Your task to perform on an android device: Open Chrome and go to settings Image 0: 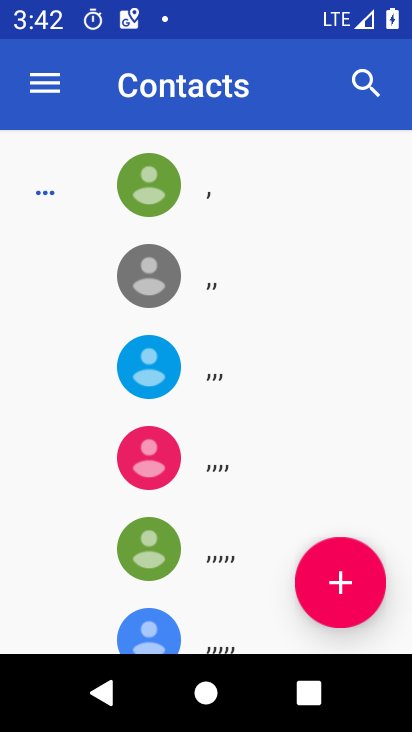
Step 0: press home button
Your task to perform on an android device: Open Chrome and go to settings Image 1: 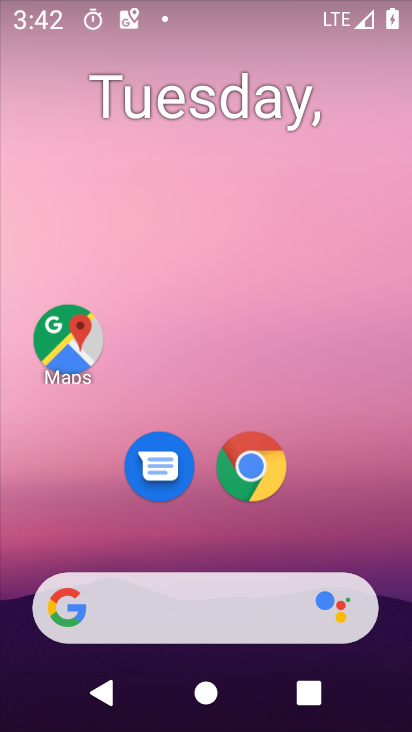
Step 1: drag from (380, 563) to (363, 278)
Your task to perform on an android device: Open Chrome and go to settings Image 2: 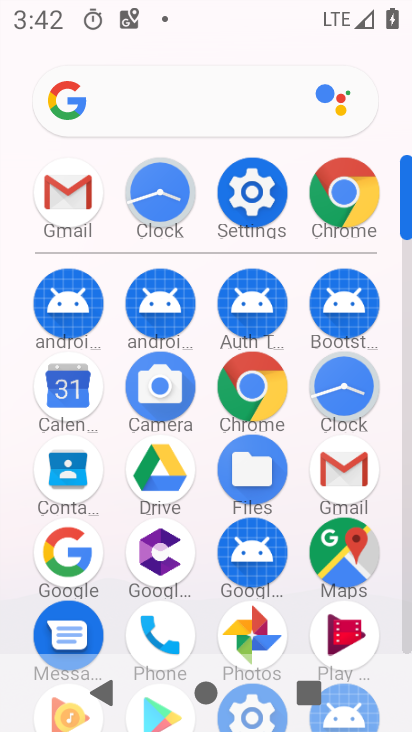
Step 2: click (245, 404)
Your task to perform on an android device: Open Chrome and go to settings Image 3: 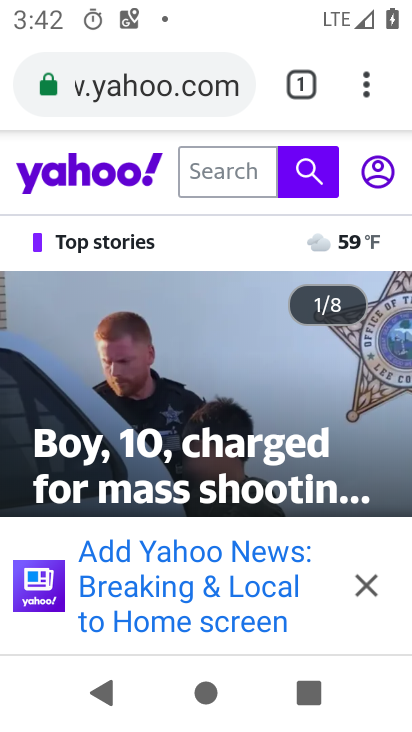
Step 3: click (370, 96)
Your task to perform on an android device: Open Chrome and go to settings Image 4: 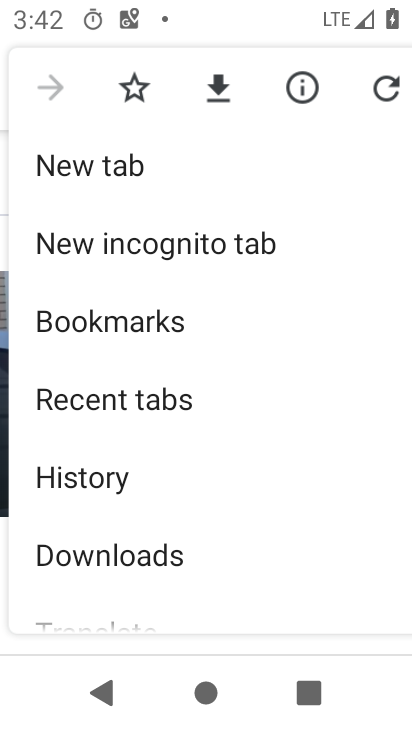
Step 4: drag from (329, 329) to (331, 246)
Your task to perform on an android device: Open Chrome and go to settings Image 5: 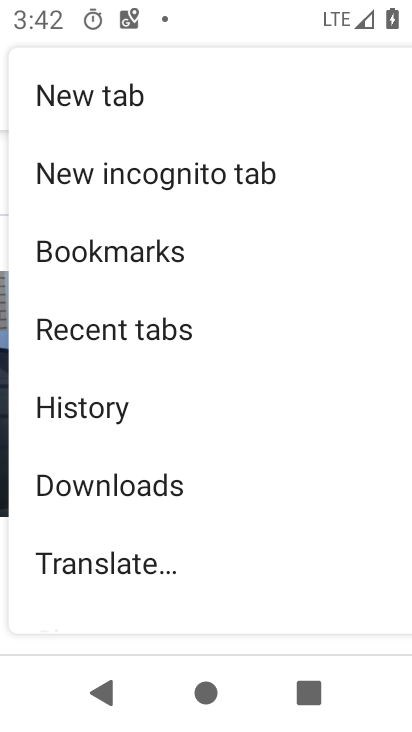
Step 5: drag from (324, 331) to (325, 241)
Your task to perform on an android device: Open Chrome and go to settings Image 6: 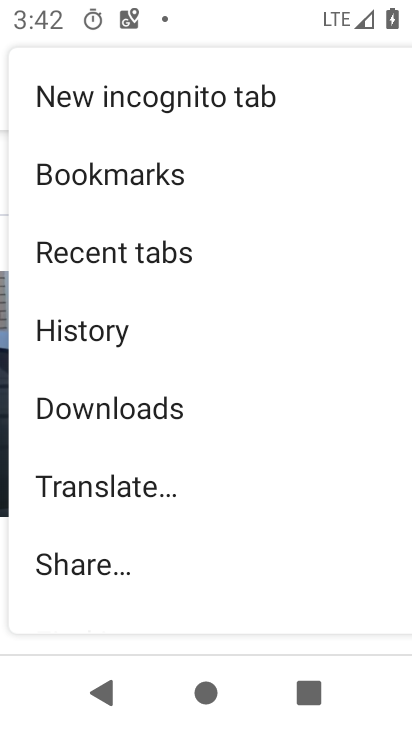
Step 6: drag from (312, 350) to (311, 268)
Your task to perform on an android device: Open Chrome and go to settings Image 7: 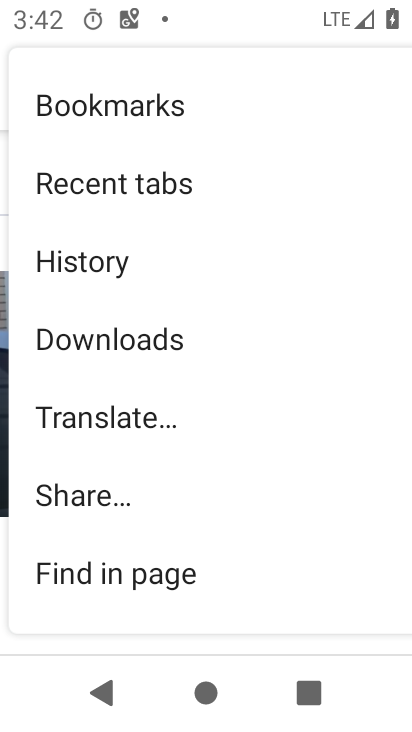
Step 7: drag from (304, 298) to (310, 254)
Your task to perform on an android device: Open Chrome and go to settings Image 8: 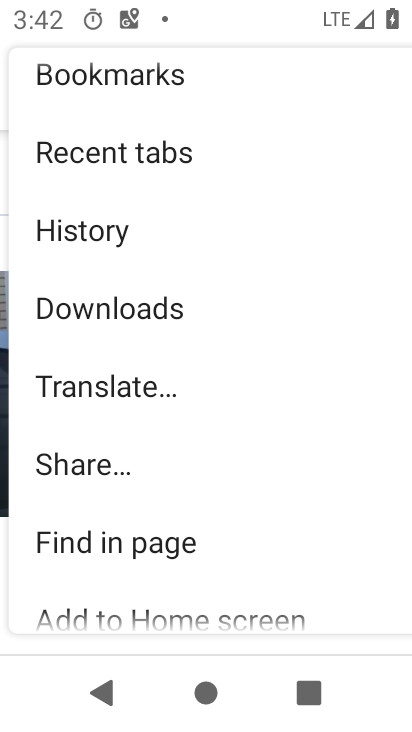
Step 8: drag from (279, 455) to (286, 303)
Your task to perform on an android device: Open Chrome and go to settings Image 9: 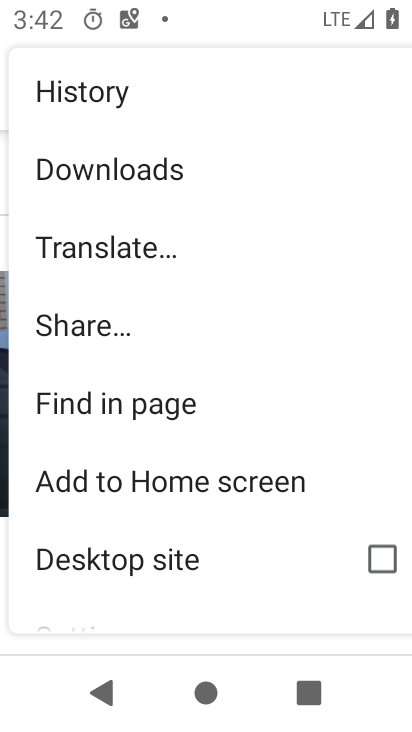
Step 9: drag from (268, 520) to (276, 378)
Your task to perform on an android device: Open Chrome and go to settings Image 10: 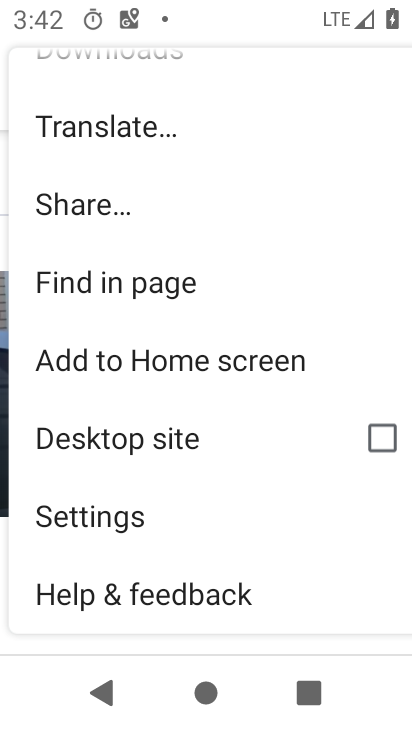
Step 10: drag from (271, 504) to (271, 356)
Your task to perform on an android device: Open Chrome and go to settings Image 11: 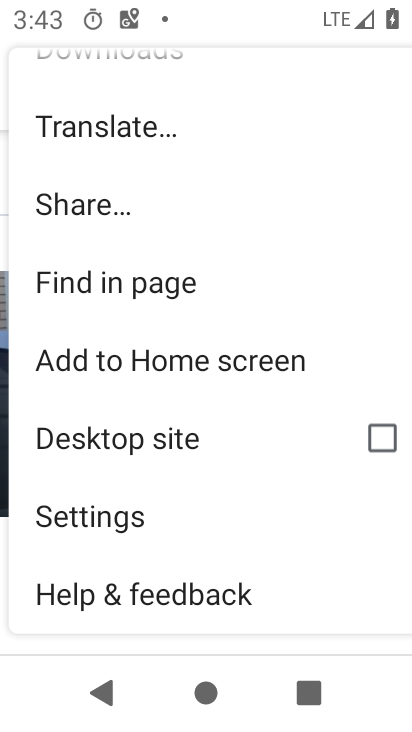
Step 11: click (179, 520)
Your task to perform on an android device: Open Chrome and go to settings Image 12: 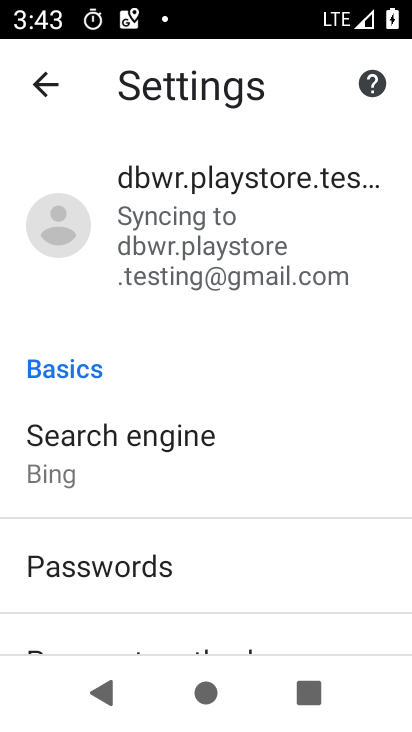
Step 12: task complete